Your task to perform on an android device: open app "Instagram" (install if not already installed) and enter user name: "nobler@yahoo.com" and password: "foraging" Image 0: 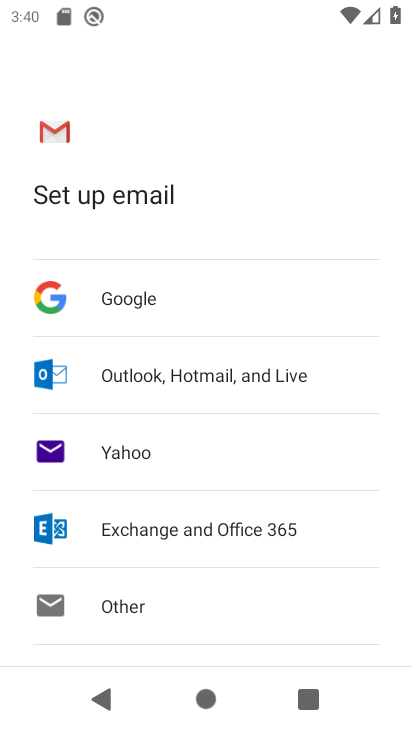
Step 0: press home button
Your task to perform on an android device: open app "Instagram" (install if not already installed) and enter user name: "nobler@yahoo.com" and password: "foraging" Image 1: 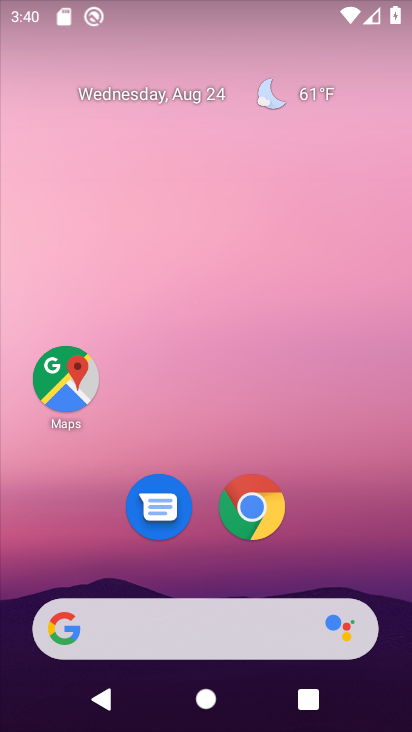
Step 1: drag from (181, 623) to (248, 21)
Your task to perform on an android device: open app "Instagram" (install if not already installed) and enter user name: "nobler@yahoo.com" and password: "foraging" Image 2: 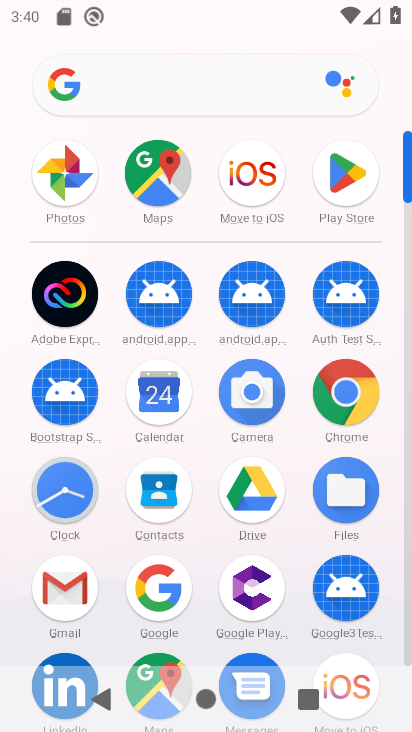
Step 2: click (351, 178)
Your task to perform on an android device: open app "Instagram" (install if not already installed) and enter user name: "nobler@yahoo.com" and password: "foraging" Image 3: 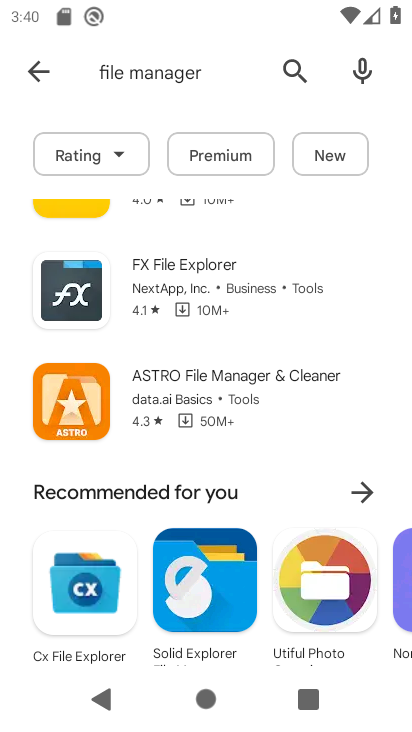
Step 3: press back button
Your task to perform on an android device: open app "Instagram" (install if not already installed) and enter user name: "nobler@yahoo.com" and password: "foraging" Image 4: 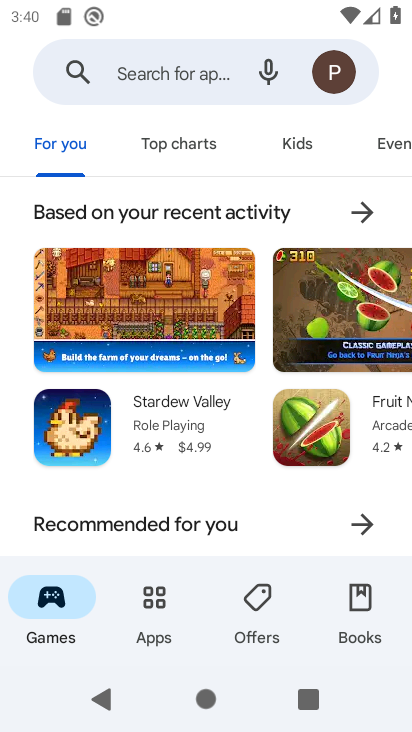
Step 4: click (196, 73)
Your task to perform on an android device: open app "Instagram" (install if not already installed) and enter user name: "nobler@yahoo.com" and password: "foraging" Image 5: 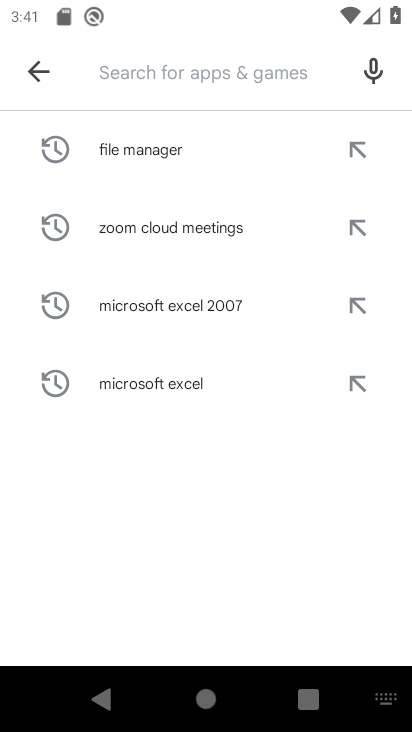
Step 5: type "Instagram"
Your task to perform on an android device: open app "Instagram" (install if not already installed) and enter user name: "nobler@yahoo.com" and password: "foraging" Image 6: 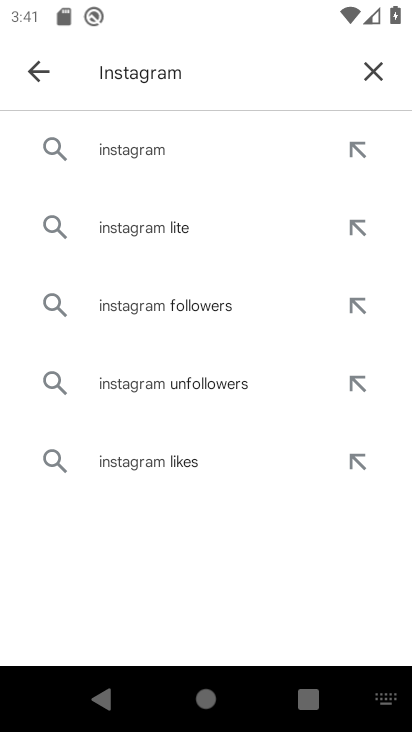
Step 6: click (129, 152)
Your task to perform on an android device: open app "Instagram" (install if not already installed) and enter user name: "nobler@yahoo.com" and password: "foraging" Image 7: 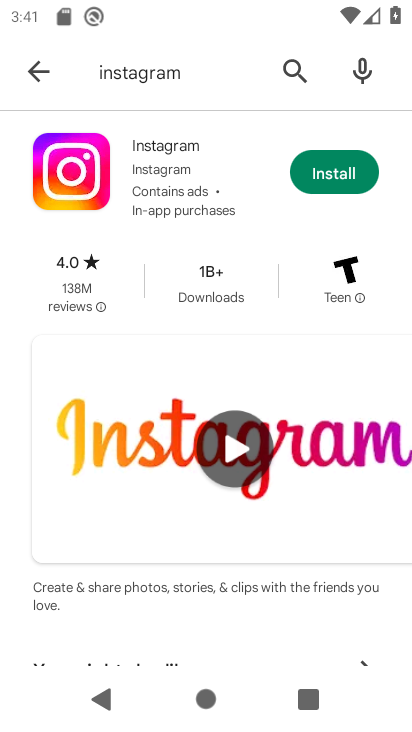
Step 7: click (333, 172)
Your task to perform on an android device: open app "Instagram" (install if not already installed) and enter user name: "nobler@yahoo.com" and password: "foraging" Image 8: 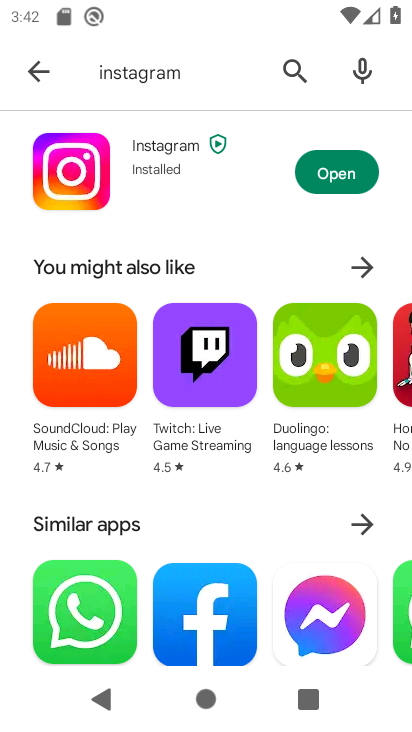
Step 8: click (333, 172)
Your task to perform on an android device: open app "Instagram" (install if not already installed) and enter user name: "nobler@yahoo.com" and password: "foraging" Image 9: 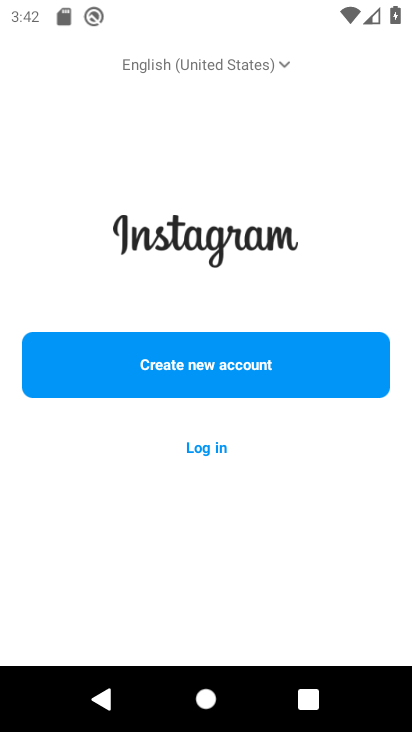
Step 9: click (211, 450)
Your task to perform on an android device: open app "Instagram" (install if not already installed) and enter user name: "nobler@yahoo.com" and password: "foraging" Image 10: 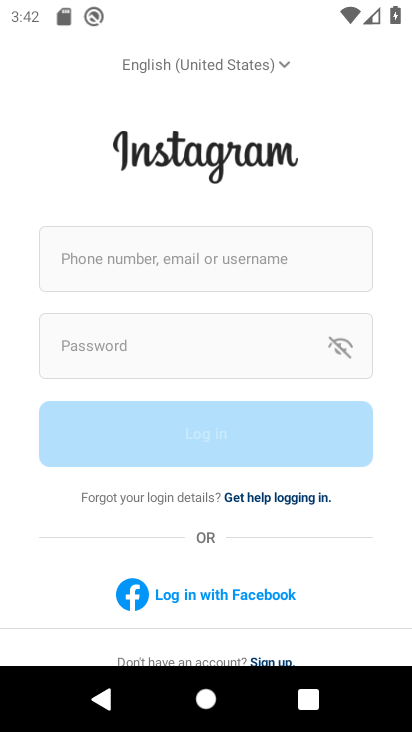
Step 10: click (164, 251)
Your task to perform on an android device: open app "Instagram" (install if not already installed) and enter user name: "nobler@yahoo.com" and password: "foraging" Image 11: 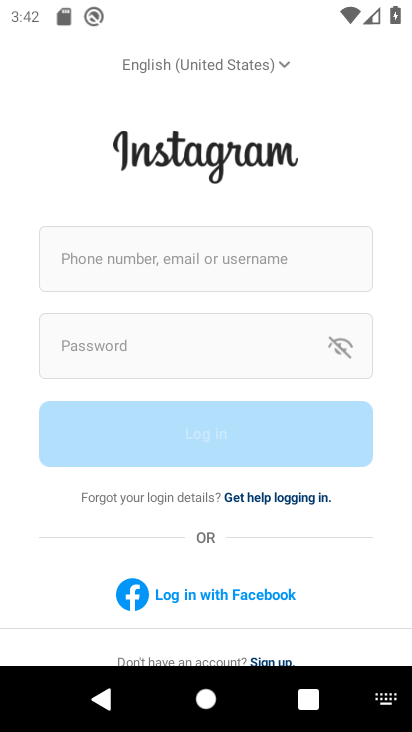
Step 11: click (222, 273)
Your task to perform on an android device: open app "Instagram" (install if not already installed) and enter user name: "nobler@yahoo.com" and password: "foraging" Image 12: 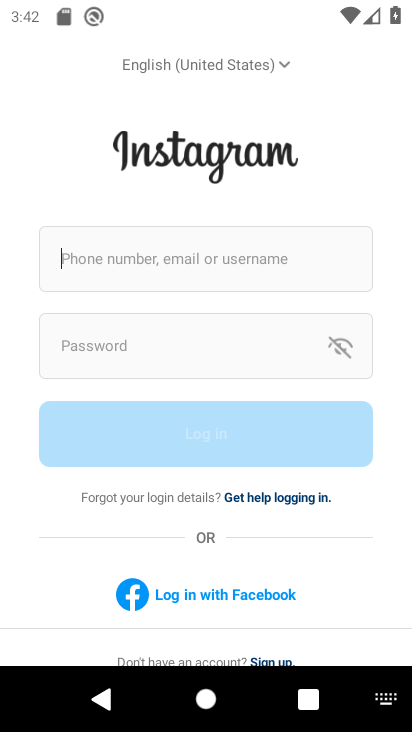
Step 12: type "nobler@yahoo.com"
Your task to perform on an android device: open app "Instagram" (install if not already installed) and enter user name: "nobler@yahoo.com" and password: "foraging" Image 13: 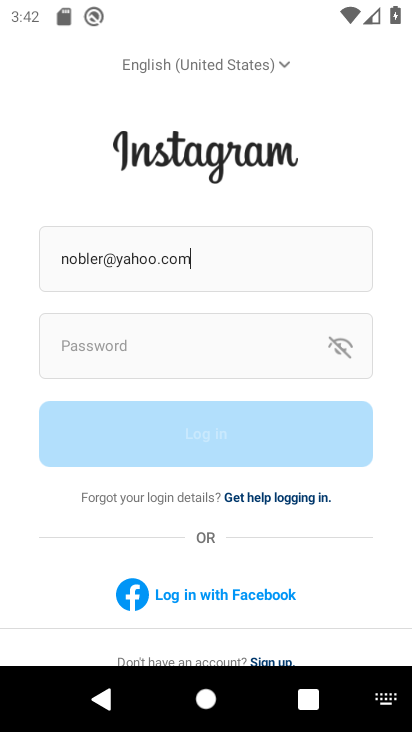
Step 13: type ""
Your task to perform on an android device: open app "Instagram" (install if not already installed) and enter user name: "nobler@yahoo.com" and password: "foraging" Image 14: 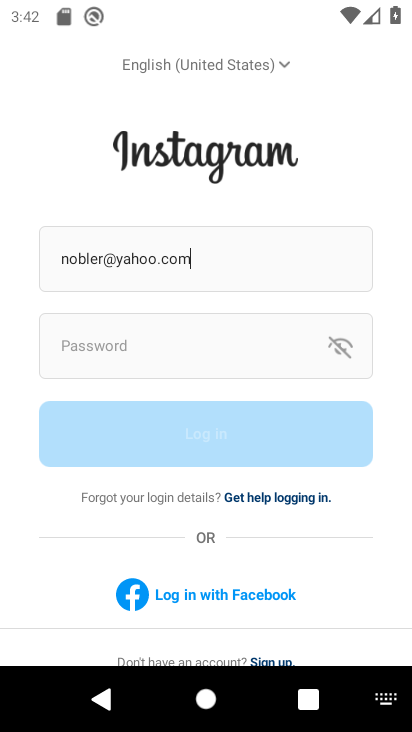
Step 14: click (133, 354)
Your task to perform on an android device: open app "Instagram" (install if not already installed) and enter user name: "nobler@yahoo.com" and password: "foraging" Image 15: 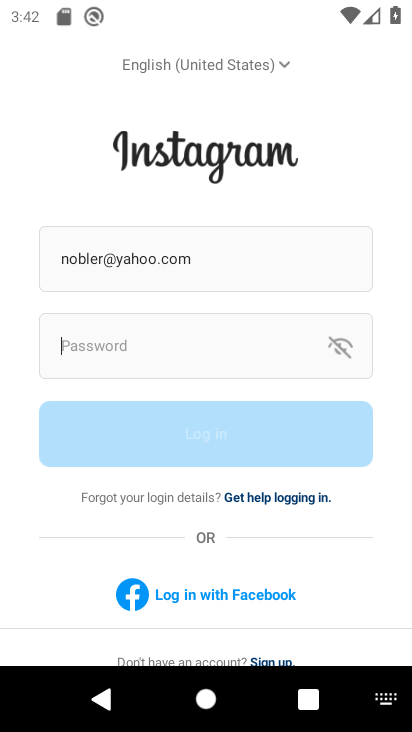
Step 15: click (189, 331)
Your task to perform on an android device: open app "Instagram" (install if not already installed) and enter user name: "nobler@yahoo.com" and password: "foraging" Image 16: 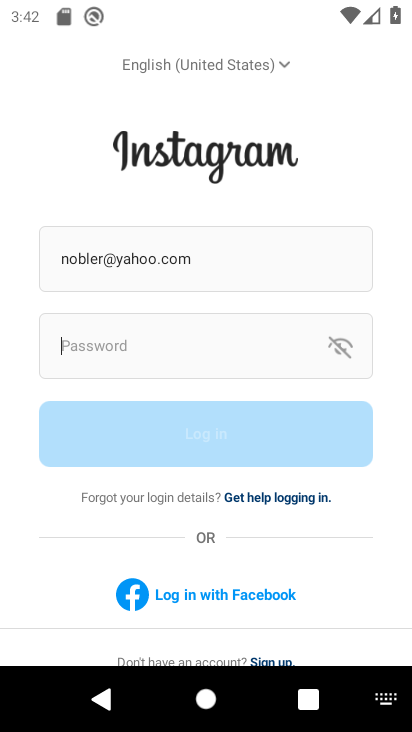
Step 16: type "foraging"
Your task to perform on an android device: open app "Instagram" (install if not already installed) and enter user name: "nobler@yahoo.com" and password: "foraging" Image 17: 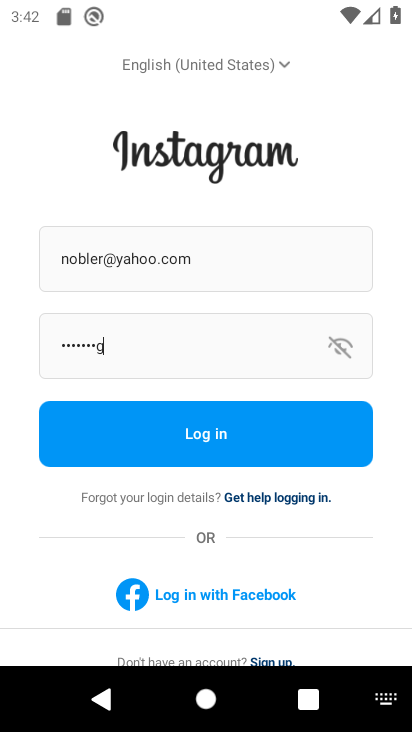
Step 17: type ""
Your task to perform on an android device: open app "Instagram" (install if not already installed) and enter user name: "nobler@yahoo.com" and password: "foraging" Image 18: 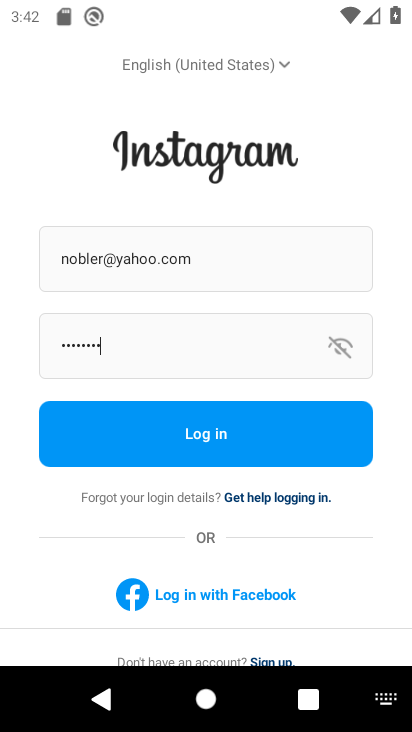
Step 18: task complete